Your task to perform on an android device: Open the calendar and show me this week's events Image 0: 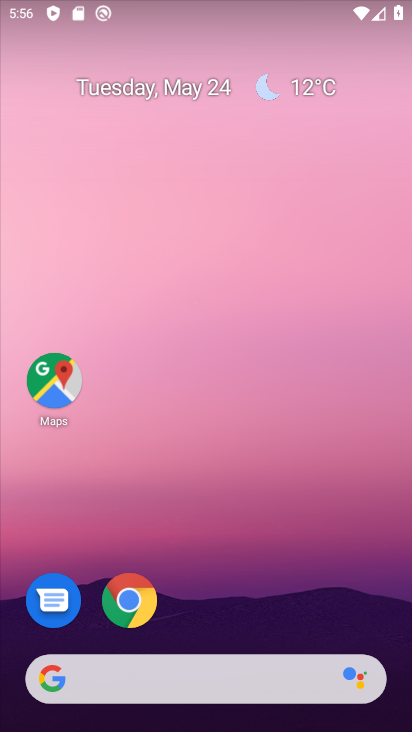
Step 0: drag from (302, 672) to (210, 36)
Your task to perform on an android device: Open the calendar and show me this week's events Image 1: 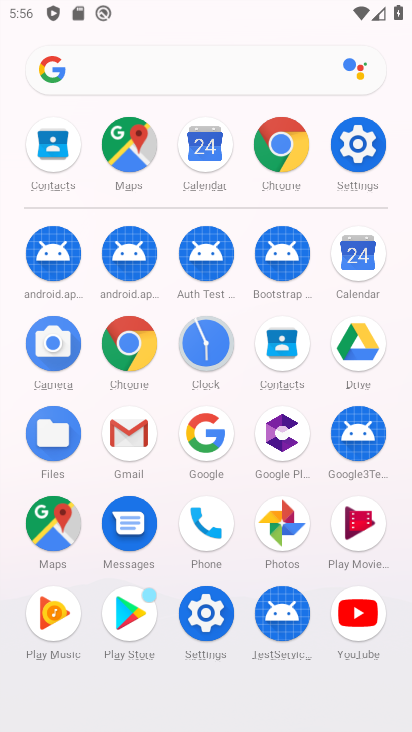
Step 1: click (352, 255)
Your task to perform on an android device: Open the calendar and show me this week's events Image 2: 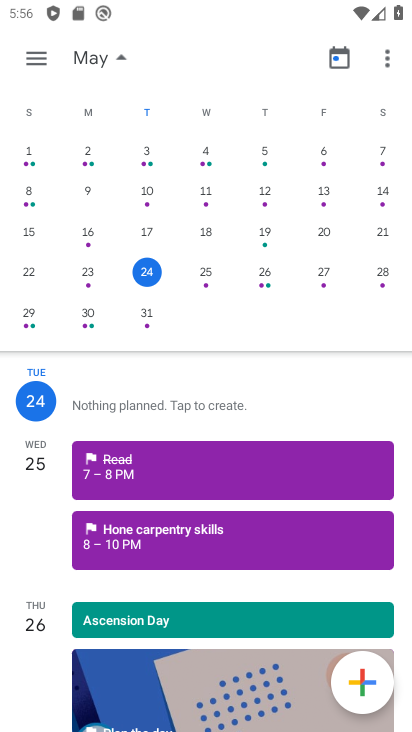
Step 2: click (263, 273)
Your task to perform on an android device: Open the calendar and show me this week's events Image 3: 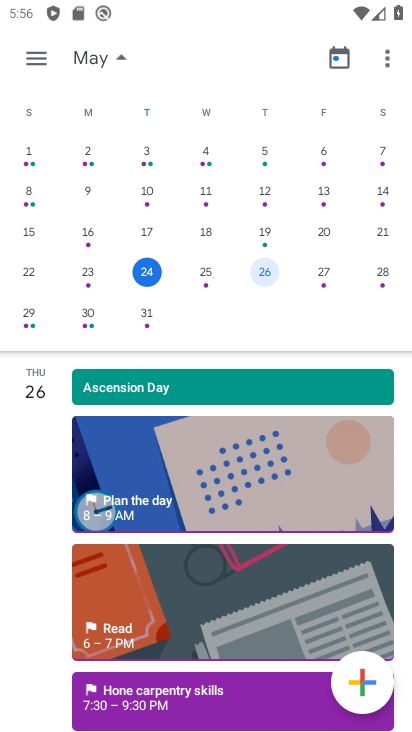
Step 3: task complete